Your task to perform on an android device: change alarm snooze length Image 0: 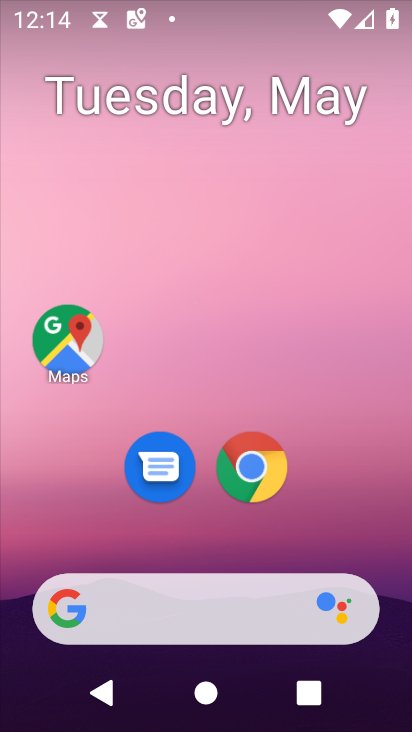
Step 0: drag from (320, 512) to (293, 35)
Your task to perform on an android device: change alarm snooze length Image 1: 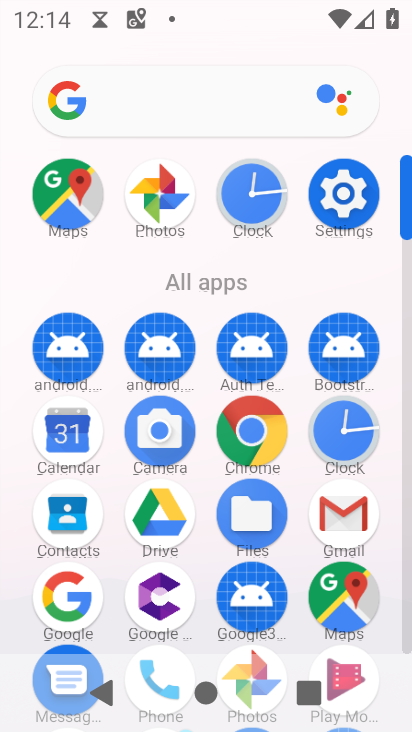
Step 1: click (347, 432)
Your task to perform on an android device: change alarm snooze length Image 2: 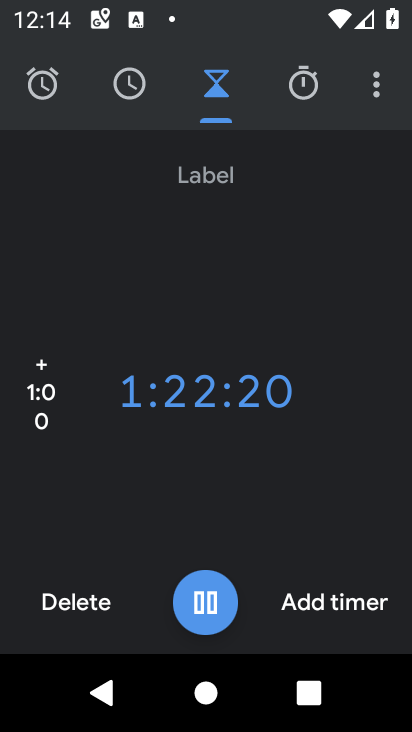
Step 2: click (384, 94)
Your task to perform on an android device: change alarm snooze length Image 3: 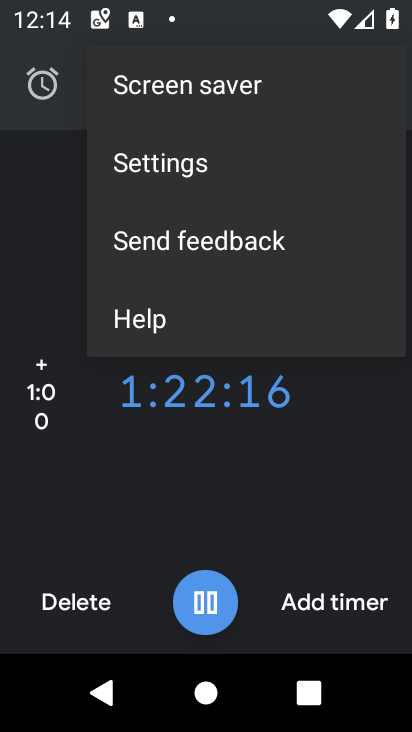
Step 3: click (207, 166)
Your task to perform on an android device: change alarm snooze length Image 4: 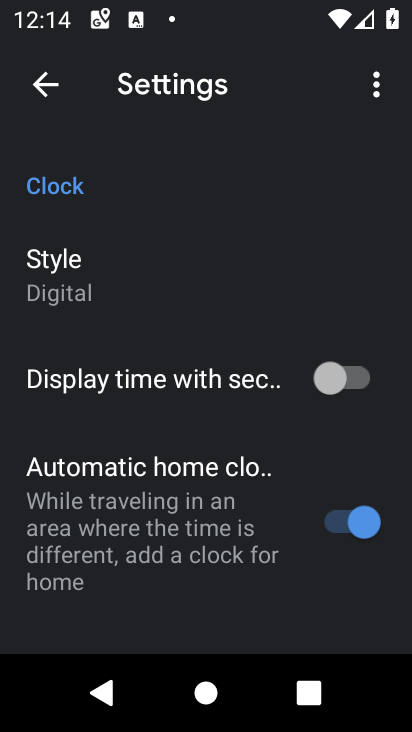
Step 4: drag from (219, 598) to (212, 196)
Your task to perform on an android device: change alarm snooze length Image 5: 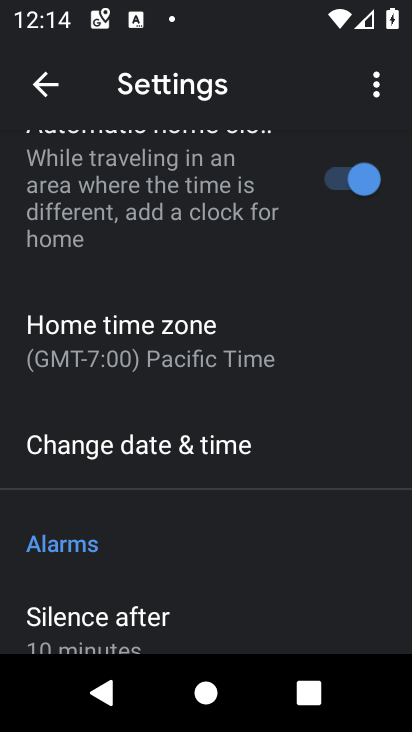
Step 5: drag from (246, 537) to (249, 144)
Your task to perform on an android device: change alarm snooze length Image 6: 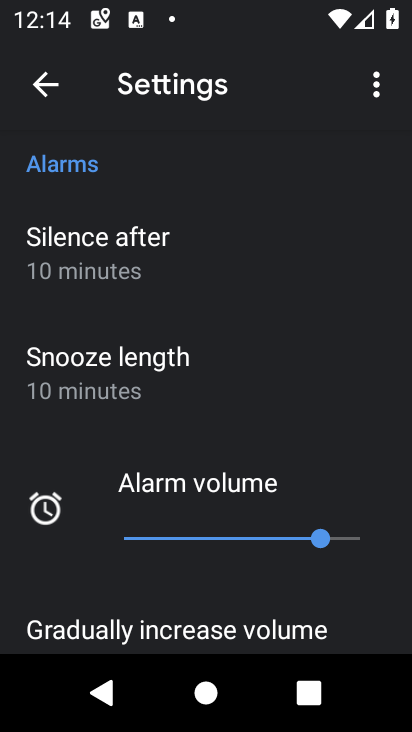
Step 6: click (160, 373)
Your task to perform on an android device: change alarm snooze length Image 7: 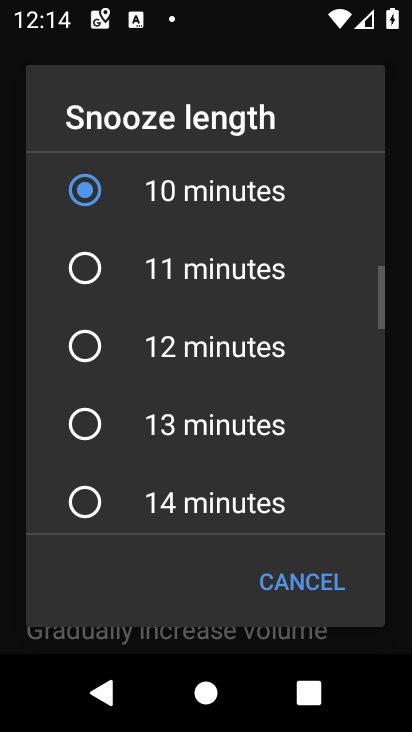
Step 7: drag from (213, 219) to (237, 537)
Your task to perform on an android device: change alarm snooze length Image 8: 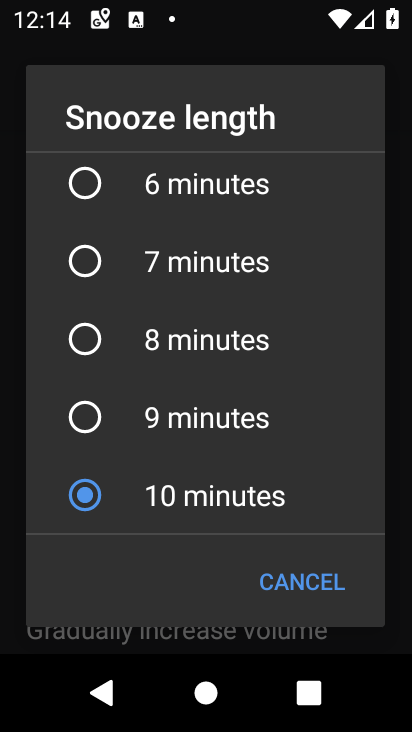
Step 8: click (92, 183)
Your task to perform on an android device: change alarm snooze length Image 9: 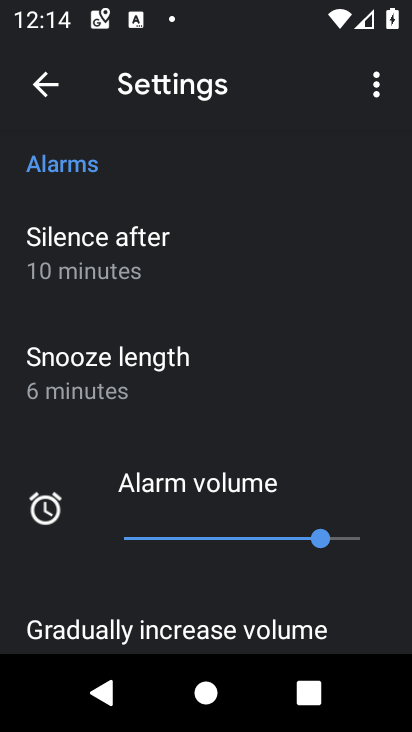
Step 9: task complete